Your task to perform on an android device: turn on location history Image 0: 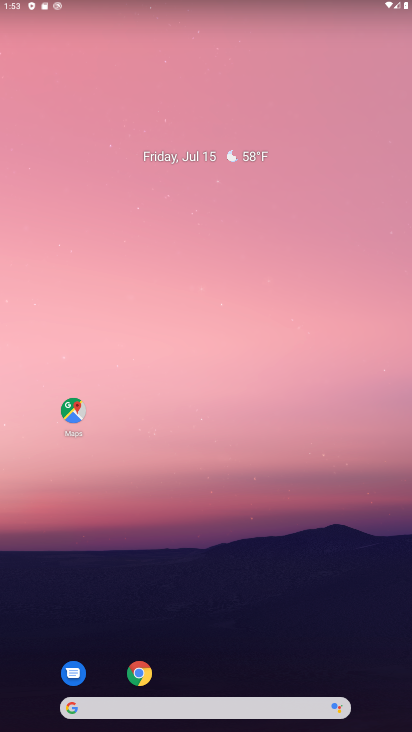
Step 0: drag from (380, 422) to (378, 97)
Your task to perform on an android device: turn on location history Image 1: 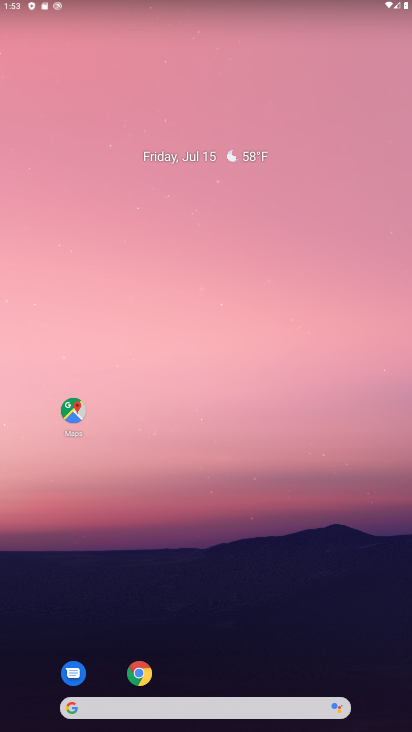
Step 1: drag from (382, 712) to (311, 65)
Your task to perform on an android device: turn on location history Image 2: 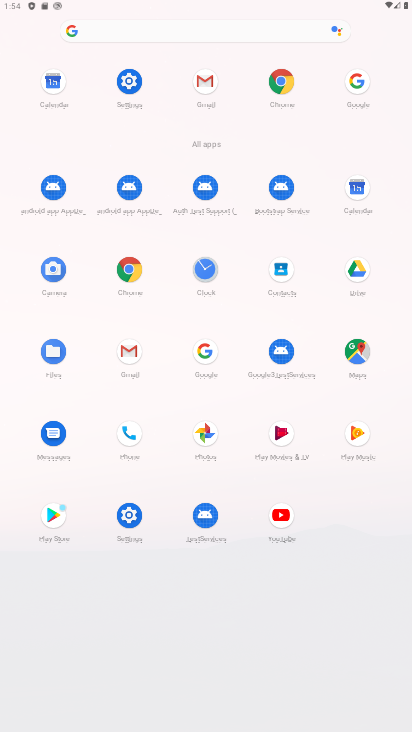
Step 2: click (127, 63)
Your task to perform on an android device: turn on location history Image 3: 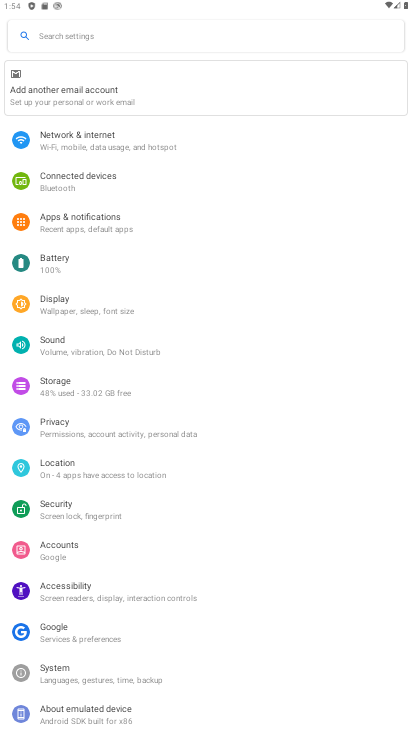
Step 3: click (48, 465)
Your task to perform on an android device: turn on location history Image 4: 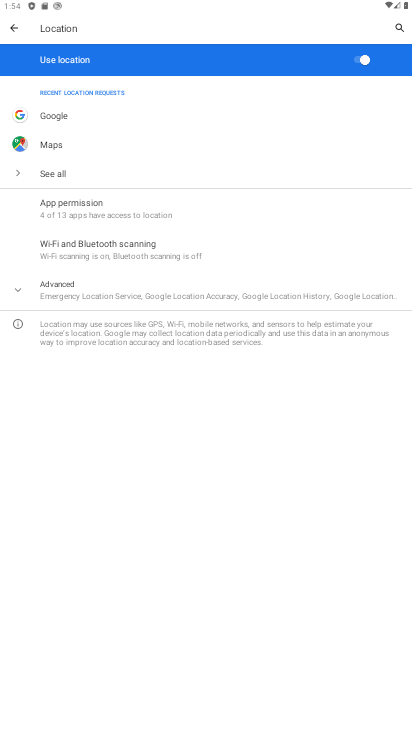
Step 4: click (25, 285)
Your task to perform on an android device: turn on location history Image 5: 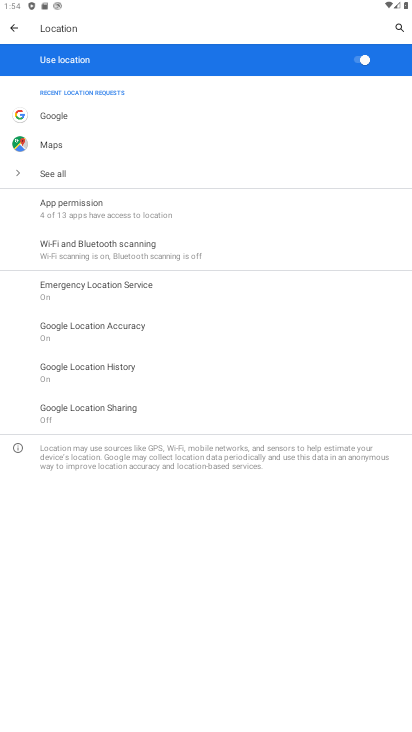
Step 5: task complete